Your task to perform on an android device: open app "Google Calendar" Image 0: 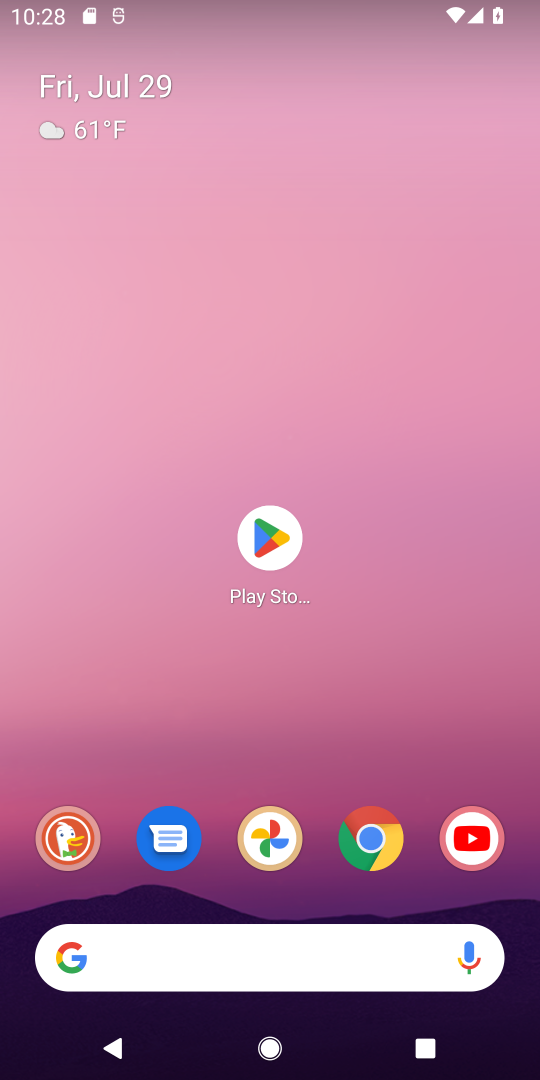
Step 0: press home button
Your task to perform on an android device: open app "Google Calendar" Image 1: 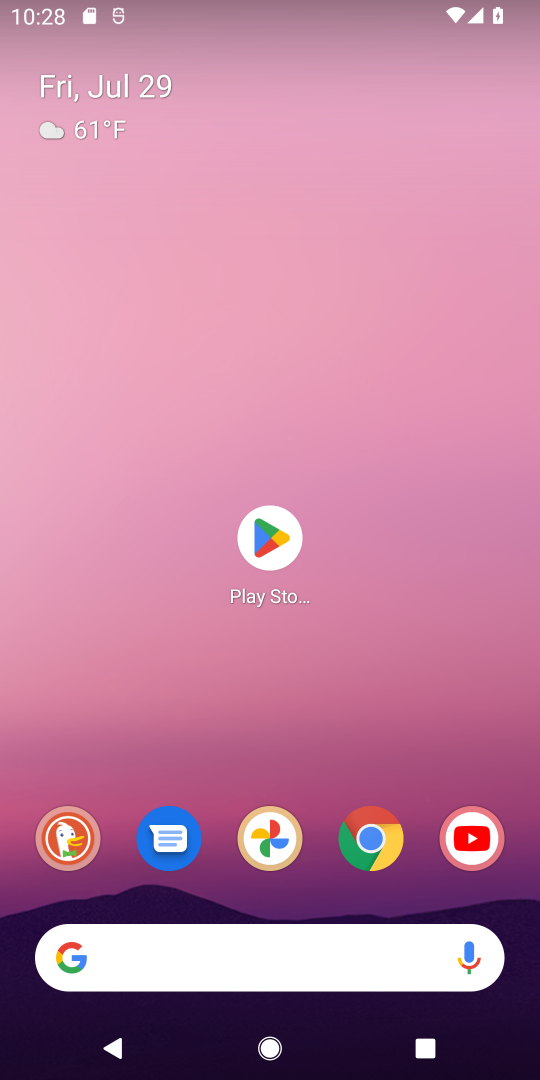
Step 1: click (273, 542)
Your task to perform on an android device: open app "Google Calendar" Image 2: 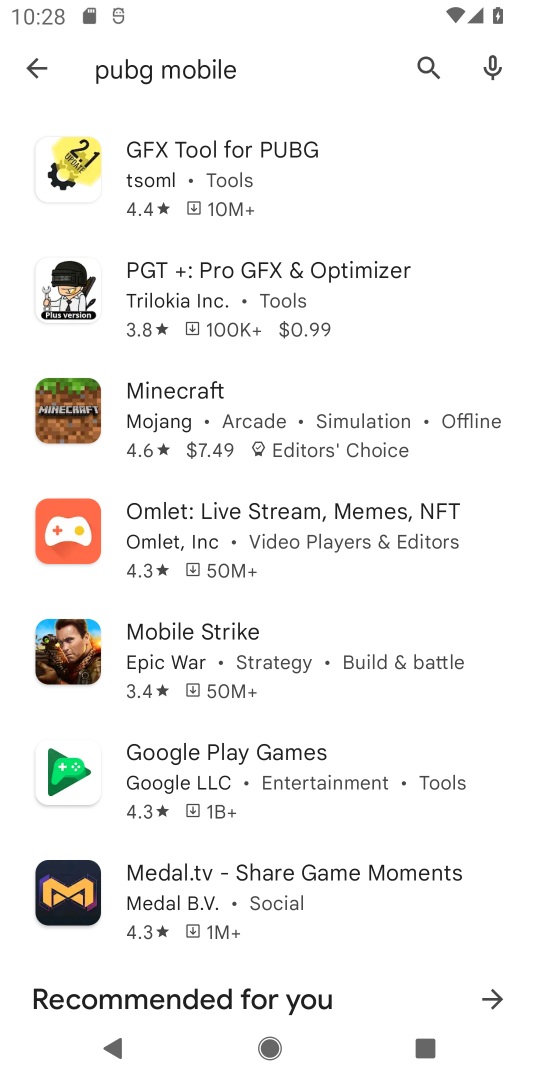
Step 2: click (422, 63)
Your task to perform on an android device: open app "Google Calendar" Image 3: 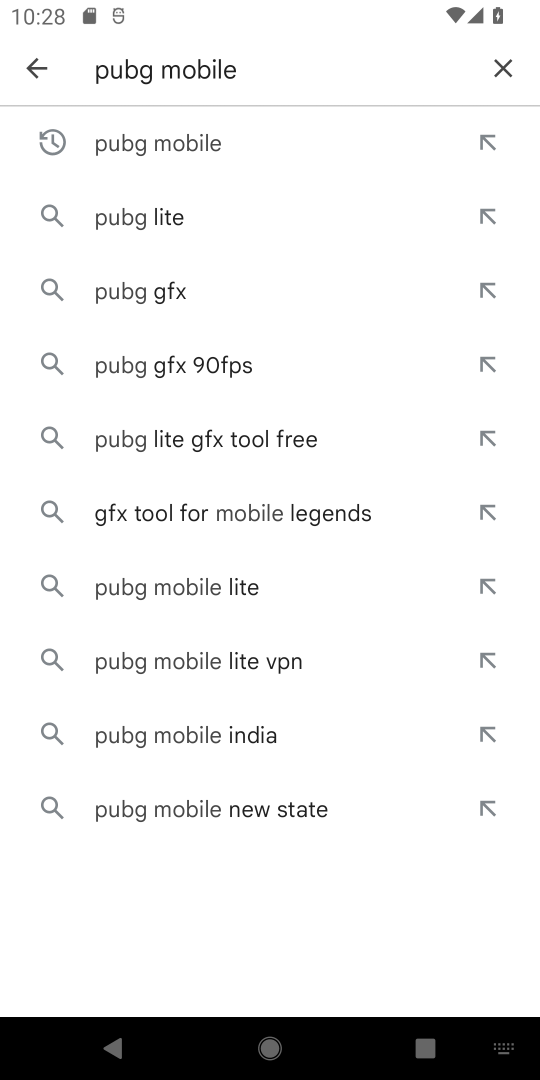
Step 3: click (501, 64)
Your task to perform on an android device: open app "Google Calendar" Image 4: 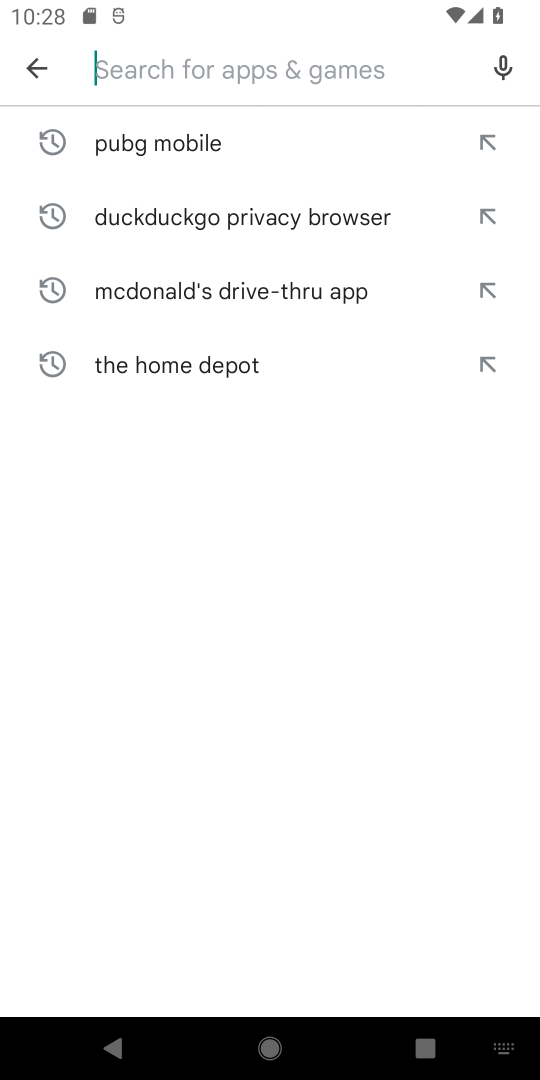
Step 4: type "Google Calendar"
Your task to perform on an android device: open app "Google Calendar" Image 5: 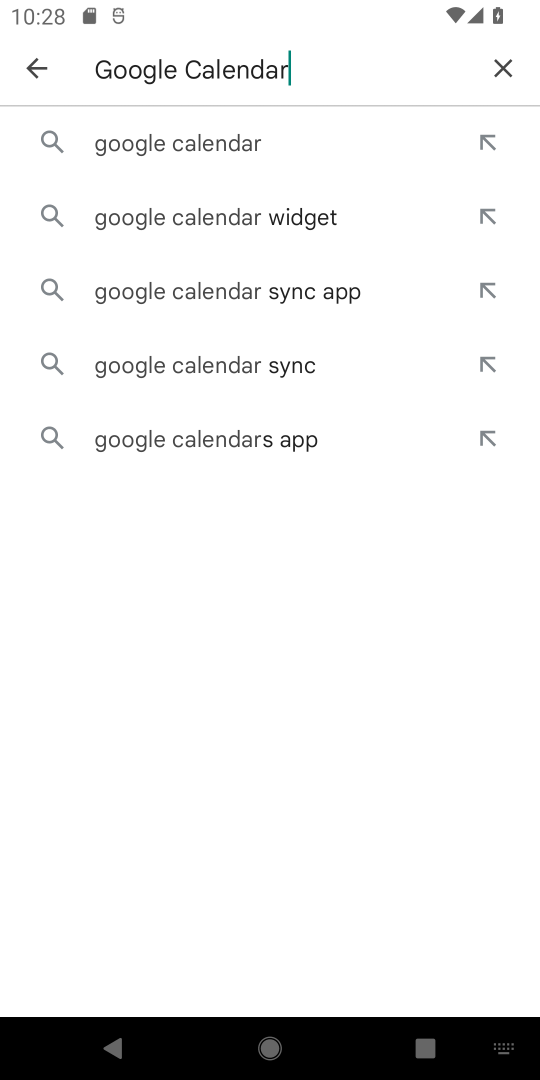
Step 5: click (235, 148)
Your task to perform on an android device: open app "Google Calendar" Image 6: 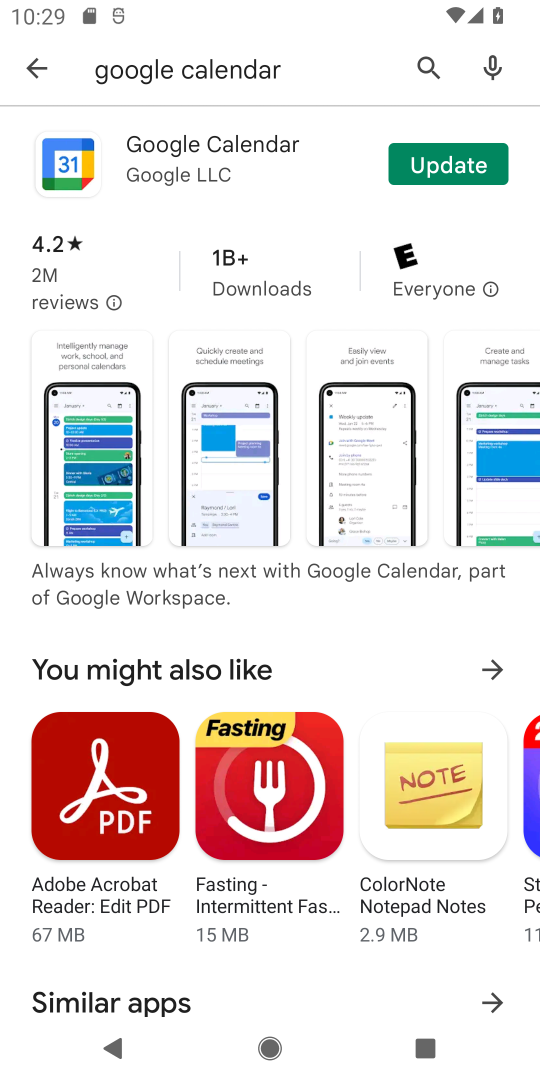
Step 6: click (143, 168)
Your task to perform on an android device: open app "Google Calendar" Image 7: 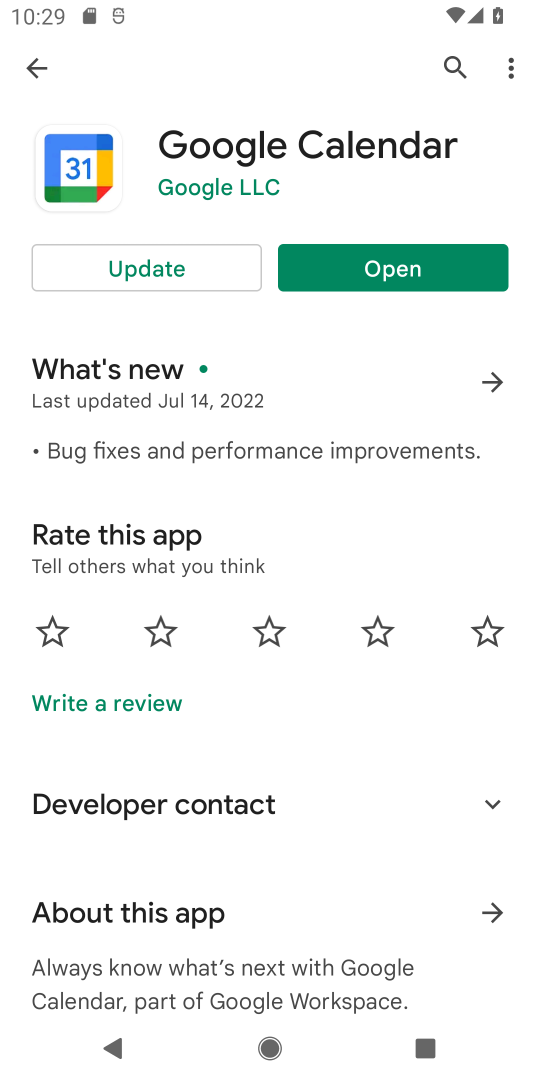
Step 7: click (379, 259)
Your task to perform on an android device: open app "Google Calendar" Image 8: 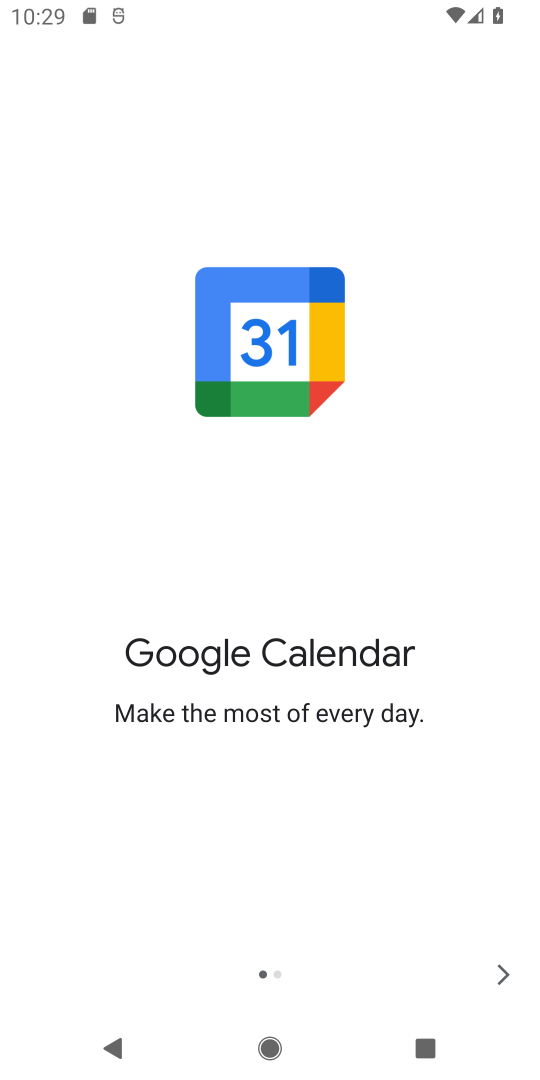
Step 8: click (494, 984)
Your task to perform on an android device: open app "Google Calendar" Image 9: 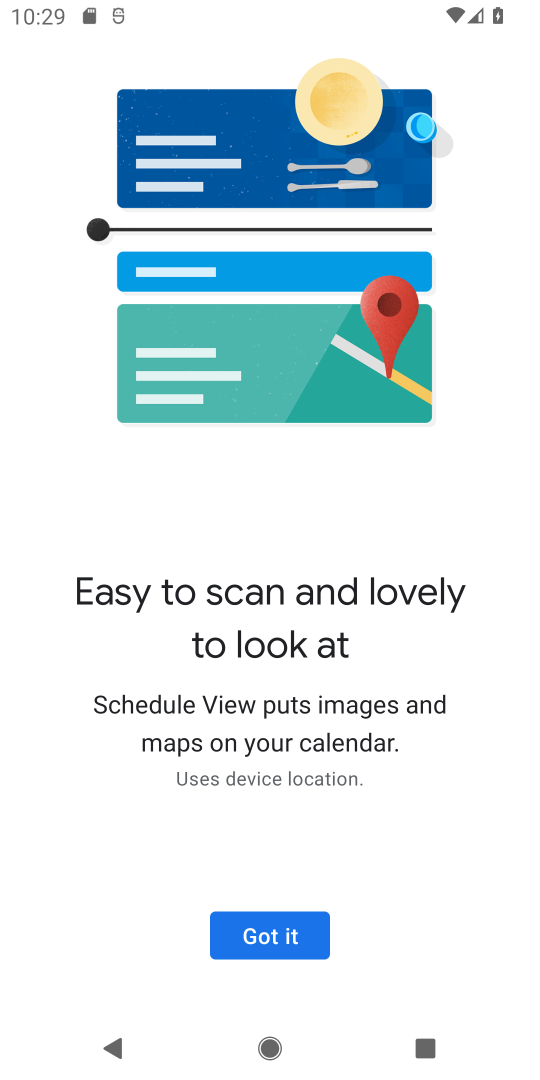
Step 9: click (284, 925)
Your task to perform on an android device: open app "Google Calendar" Image 10: 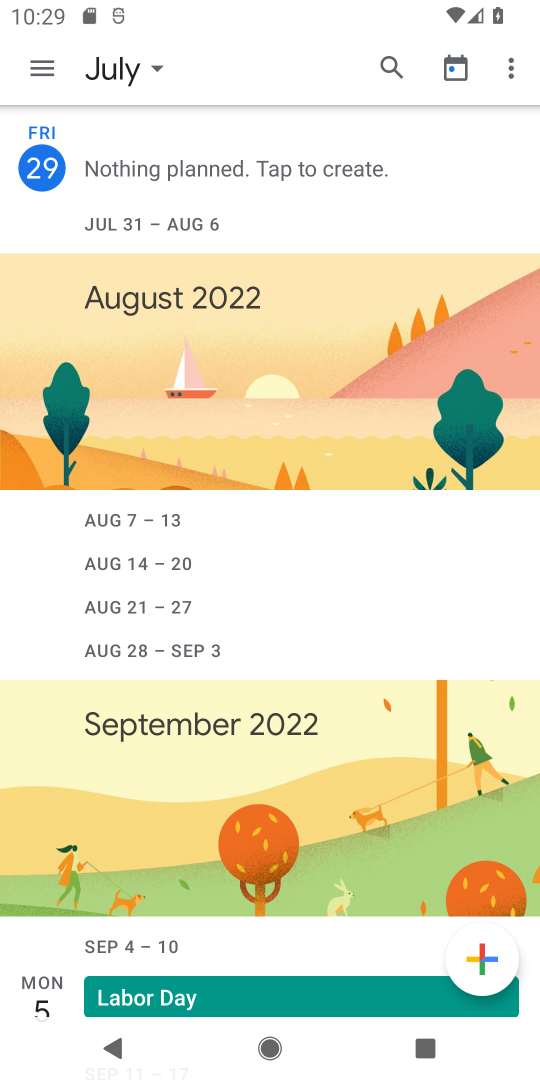
Step 10: task complete